Your task to perform on an android device: allow cookies in the chrome app Image 0: 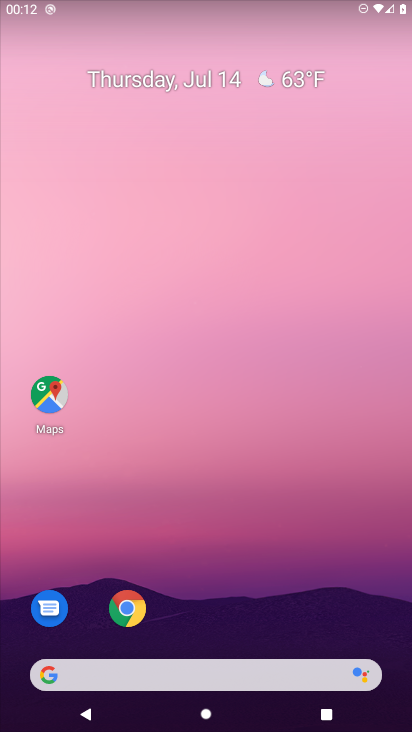
Step 0: press home button
Your task to perform on an android device: allow cookies in the chrome app Image 1: 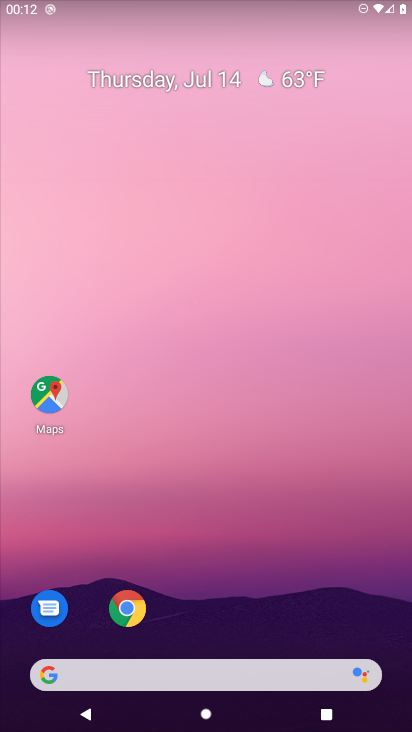
Step 1: drag from (233, 635) to (191, 141)
Your task to perform on an android device: allow cookies in the chrome app Image 2: 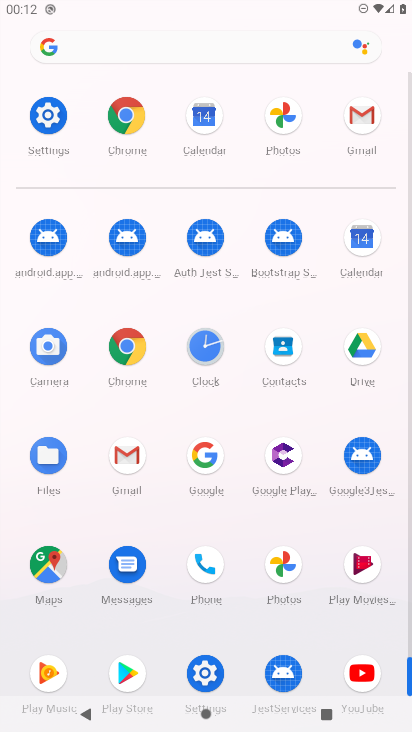
Step 2: click (126, 123)
Your task to perform on an android device: allow cookies in the chrome app Image 3: 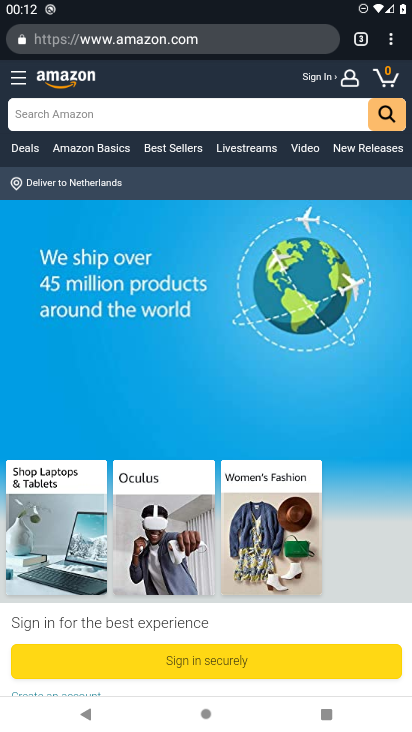
Step 3: drag from (392, 48) to (260, 465)
Your task to perform on an android device: allow cookies in the chrome app Image 4: 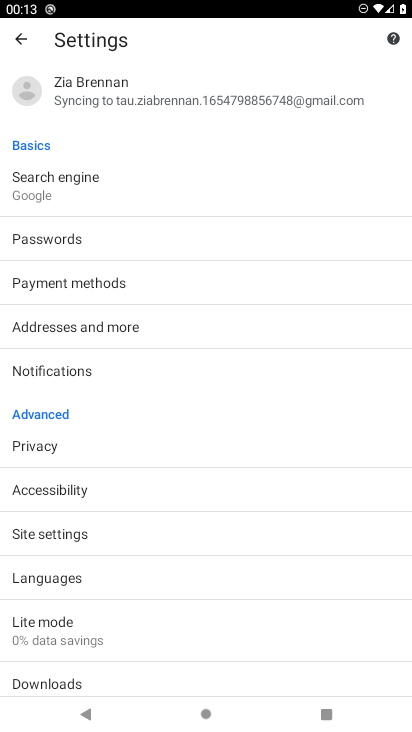
Step 4: click (38, 530)
Your task to perform on an android device: allow cookies in the chrome app Image 5: 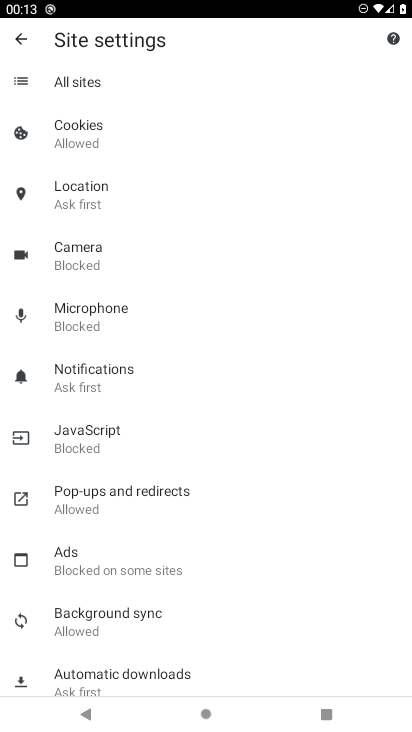
Step 5: click (83, 133)
Your task to perform on an android device: allow cookies in the chrome app Image 6: 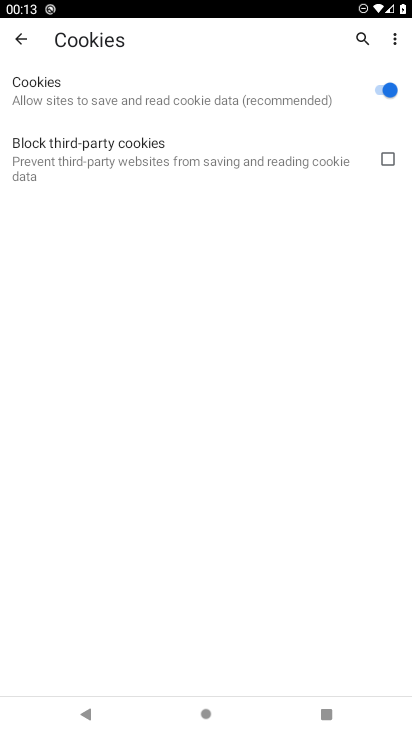
Step 6: task complete